Your task to perform on an android device: turn on wifi Image 0: 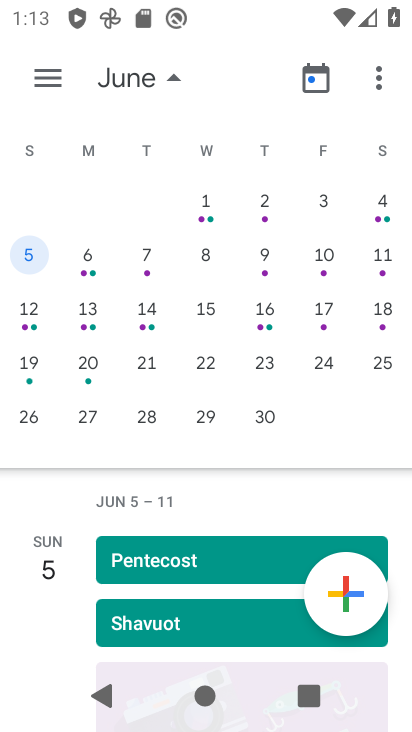
Step 0: press home button
Your task to perform on an android device: turn on wifi Image 1: 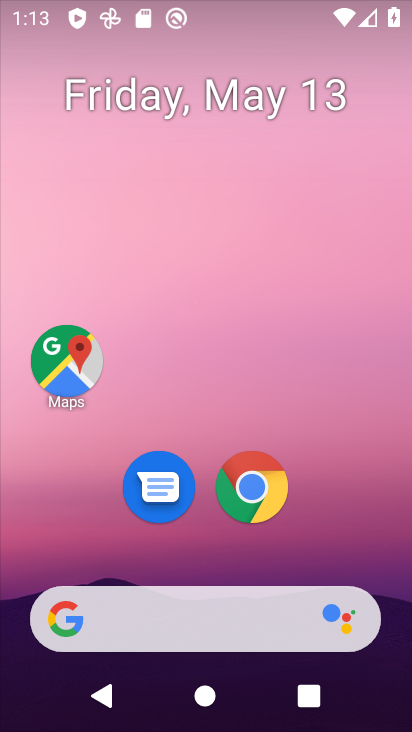
Step 1: drag from (380, 543) to (338, 134)
Your task to perform on an android device: turn on wifi Image 2: 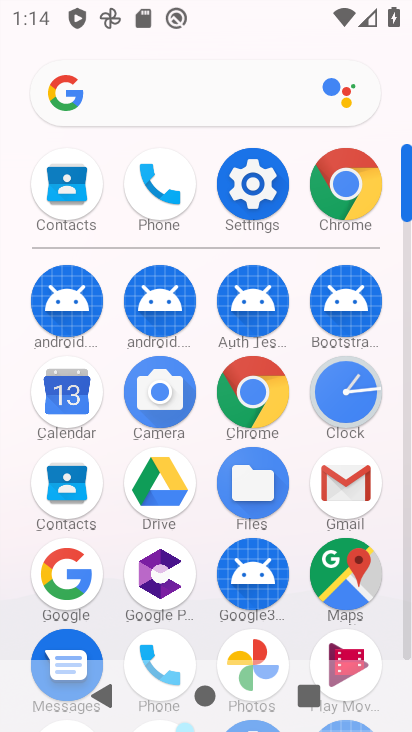
Step 2: click (245, 187)
Your task to perform on an android device: turn on wifi Image 3: 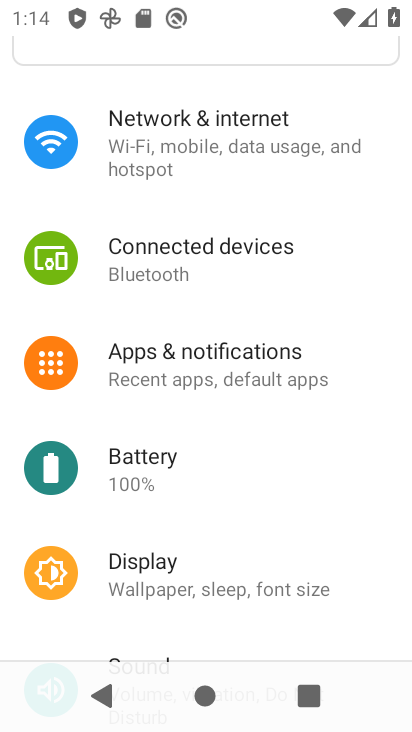
Step 3: drag from (240, 185) to (248, 527)
Your task to perform on an android device: turn on wifi Image 4: 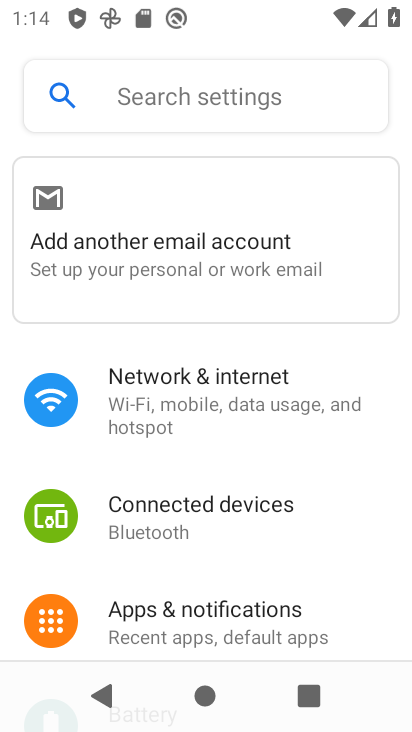
Step 4: click (204, 393)
Your task to perform on an android device: turn on wifi Image 5: 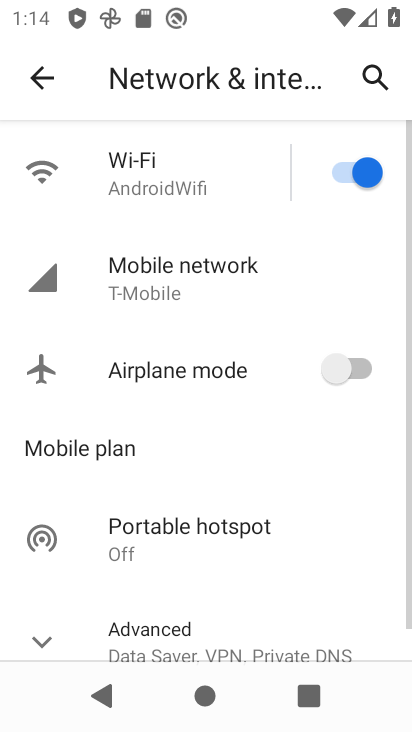
Step 5: click (214, 159)
Your task to perform on an android device: turn on wifi Image 6: 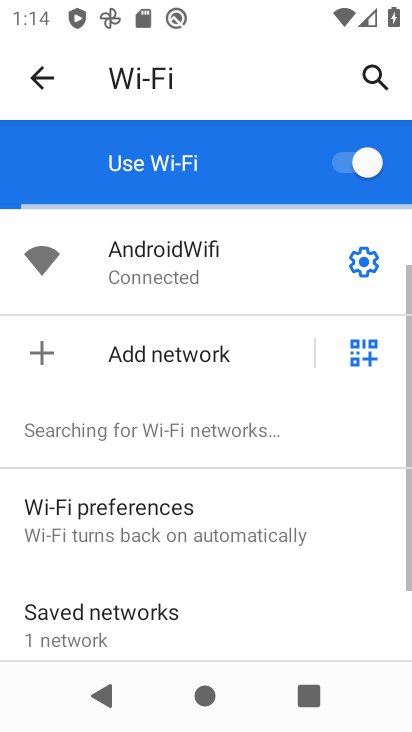
Step 6: task complete